Your task to perform on an android device: toggle notification dots Image 0: 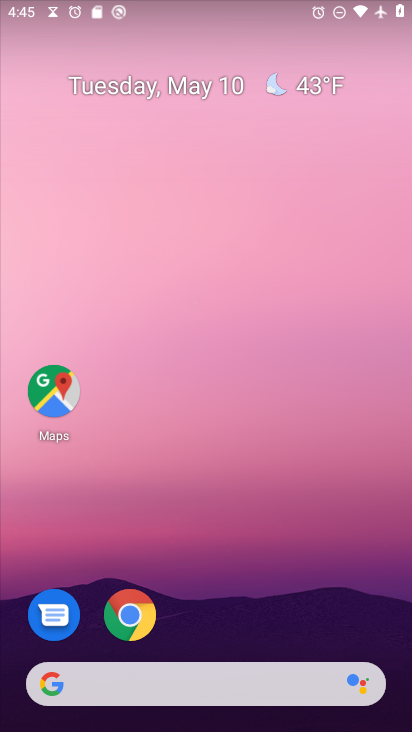
Step 0: drag from (279, 555) to (162, 84)
Your task to perform on an android device: toggle notification dots Image 1: 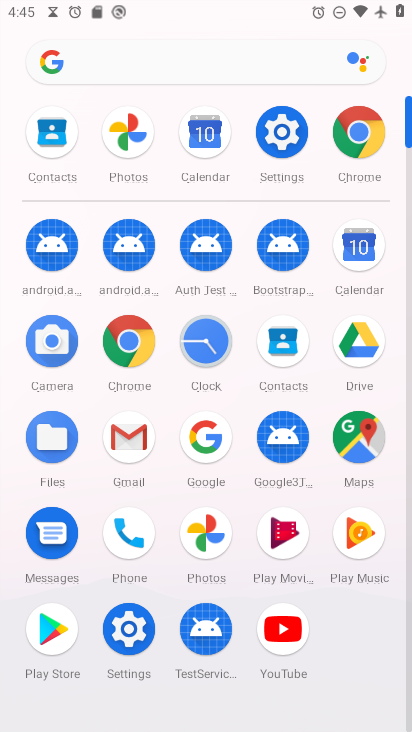
Step 1: drag from (8, 569) to (24, 234)
Your task to perform on an android device: toggle notification dots Image 2: 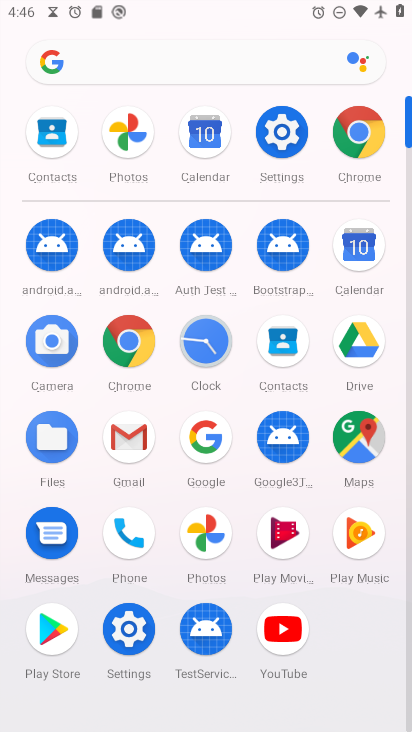
Step 2: click (128, 627)
Your task to perform on an android device: toggle notification dots Image 3: 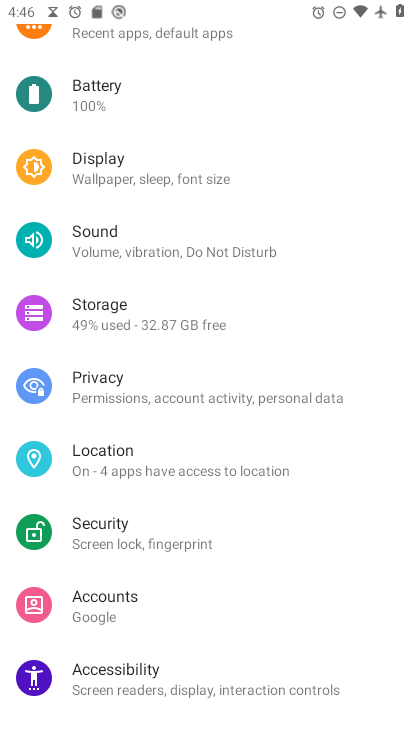
Step 3: drag from (156, 172) to (165, 538)
Your task to perform on an android device: toggle notification dots Image 4: 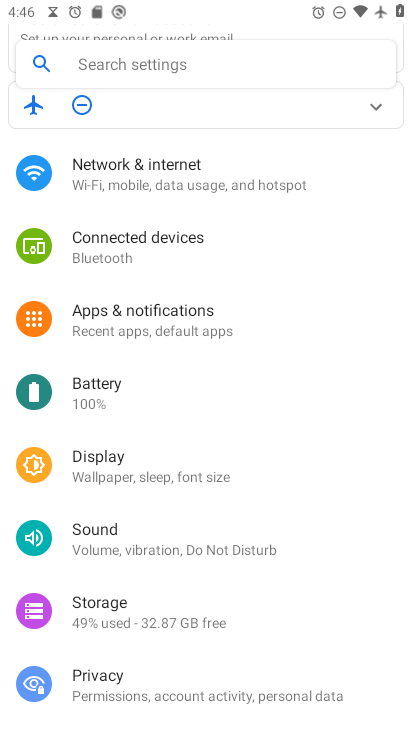
Step 4: click (165, 319)
Your task to perform on an android device: toggle notification dots Image 5: 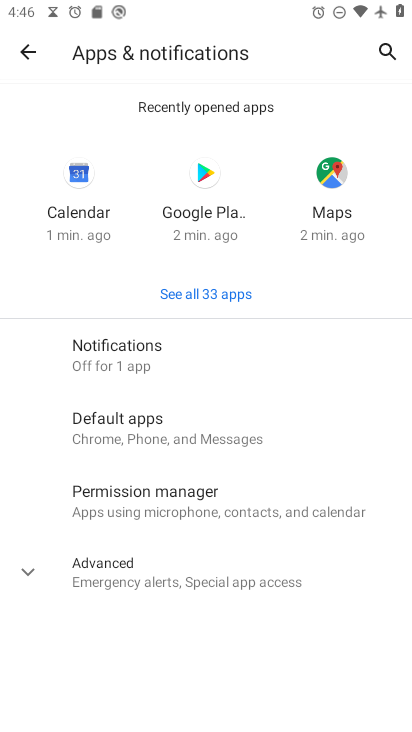
Step 5: click (149, 358)
Your task to perform on an android device: toggle notification dots Image 6: 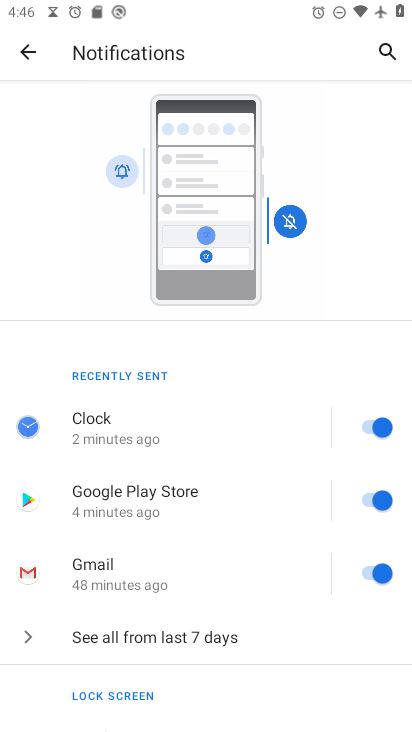
Step 6: drag from (174, 543) to (217, 189)
Your task to perform on an android device: toggle notification dots Image 7: 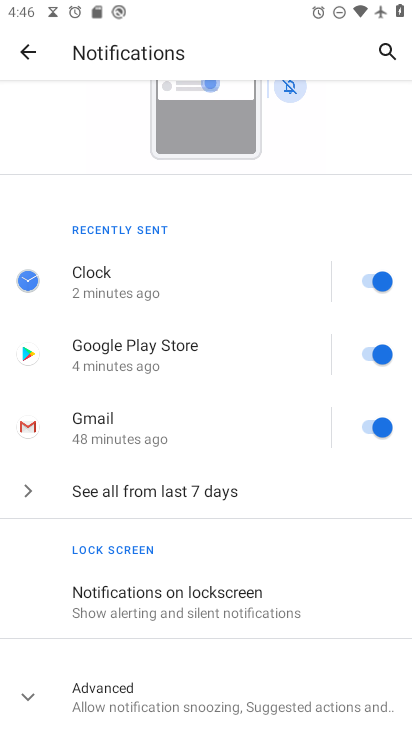
Step 7: click (161, 601)
Your task to perform on an android device: toggle notification dots Image 8: 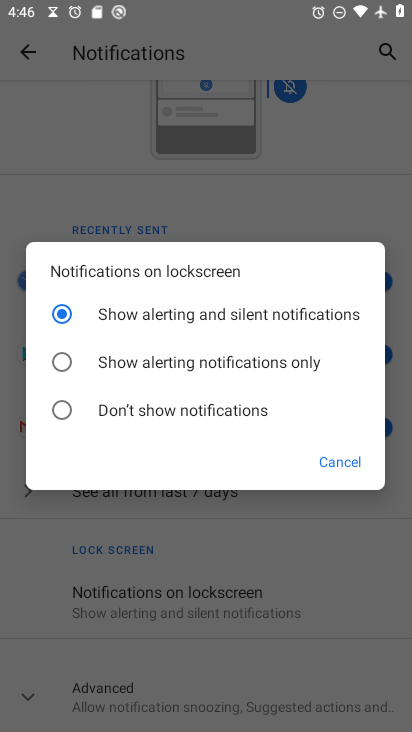
Step 8: click (319, 457)
Your task to perform on an android device: toggle notification dots Image 9: 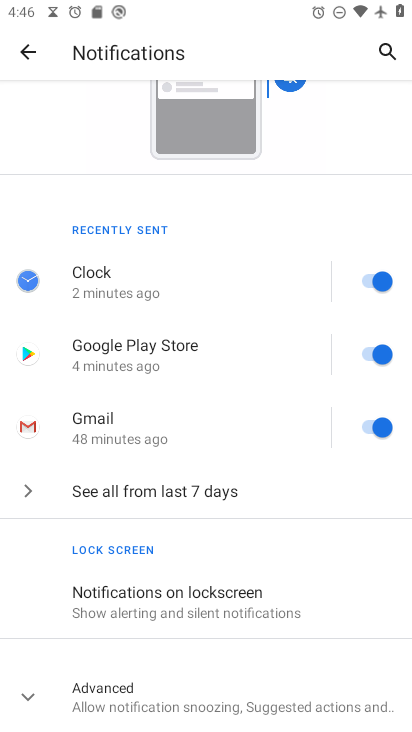
Step 9: click (61, 679)
Your task to perform on an android device: toggle notification dots Image 10: 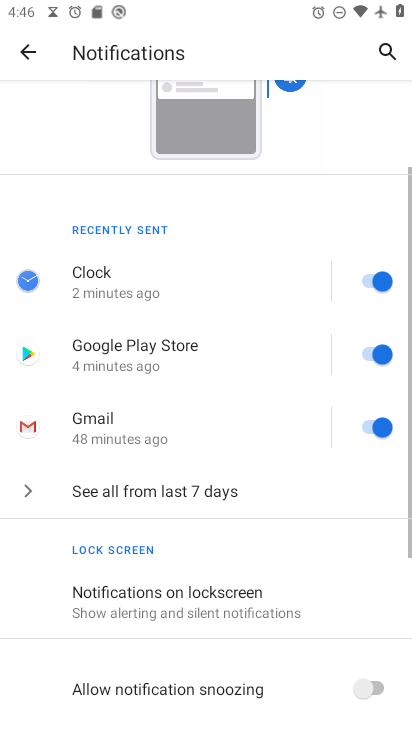
Step 10: drag from (230, 622) to (239, 231)
Your task to perform on an android device: toggle notification dots Image 11: 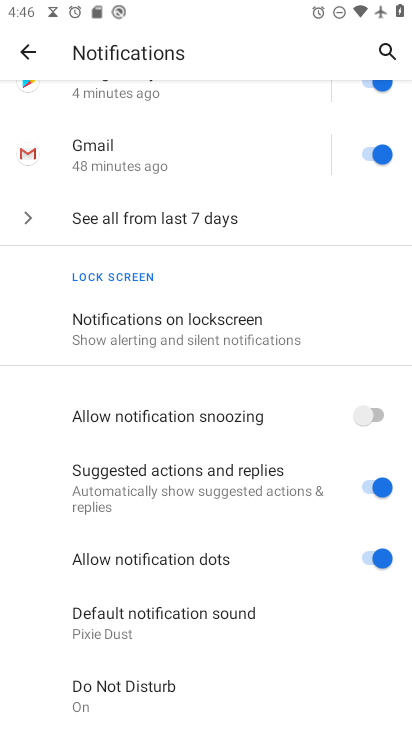
Step 11: click (381, 563)
Your task to perform on an android device: toggle notification dots Image 12: 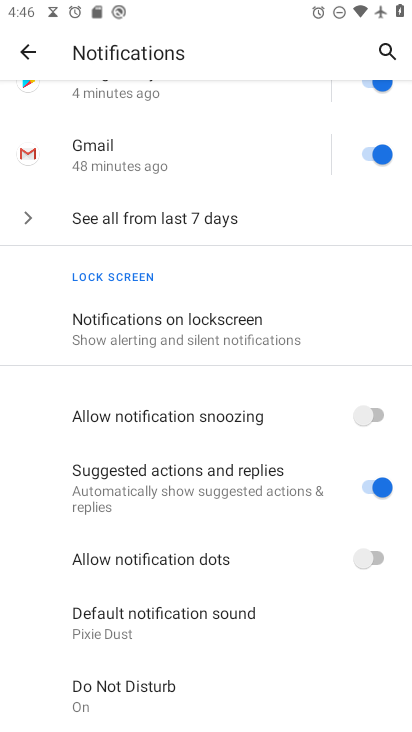
Step 12: task complete